Your task to perform on an android device: When is my next appointment? Image 0: 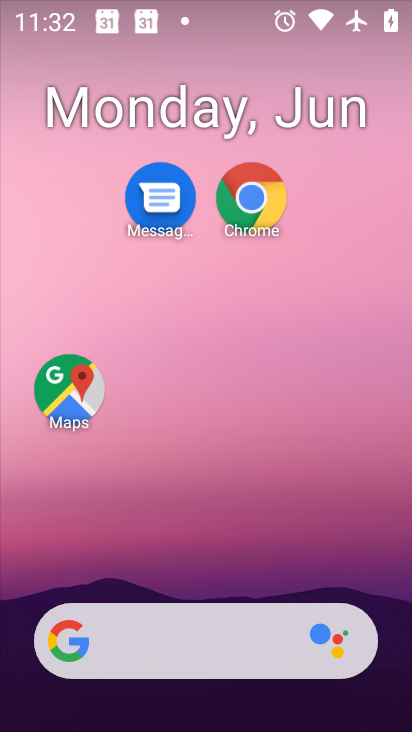
Step 0: drag from (193, 562) to (174, 191)
Your task to perform on an android device: When is my next appointment? Image 1: 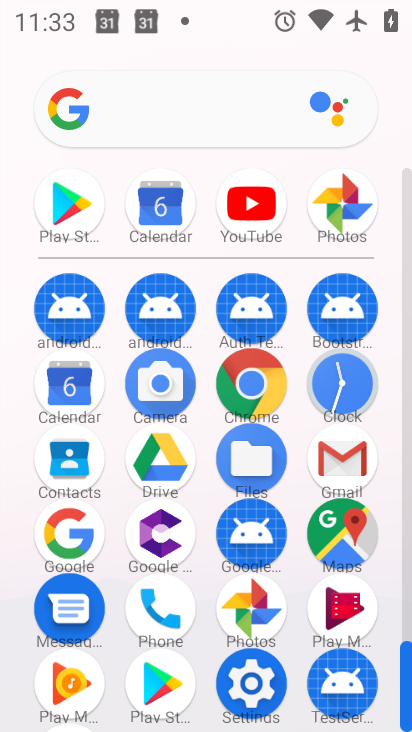
Step 1: click (85, 399)
Your task to perform on an android device: When is my next appointment? Image 2: 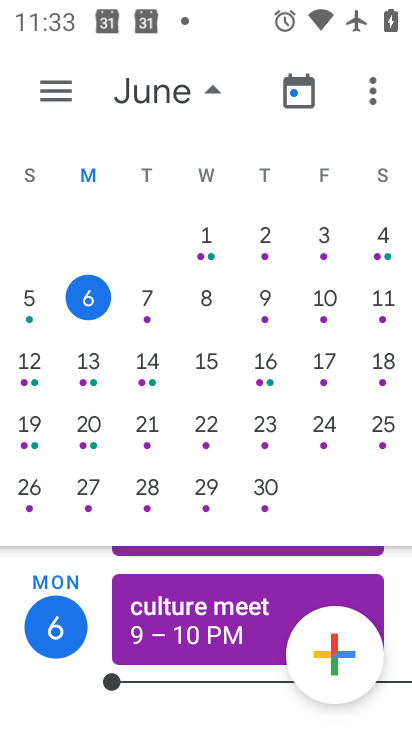
Step 2: task complete